Your task to perform on an android device: change the clock display to analog Image 0: 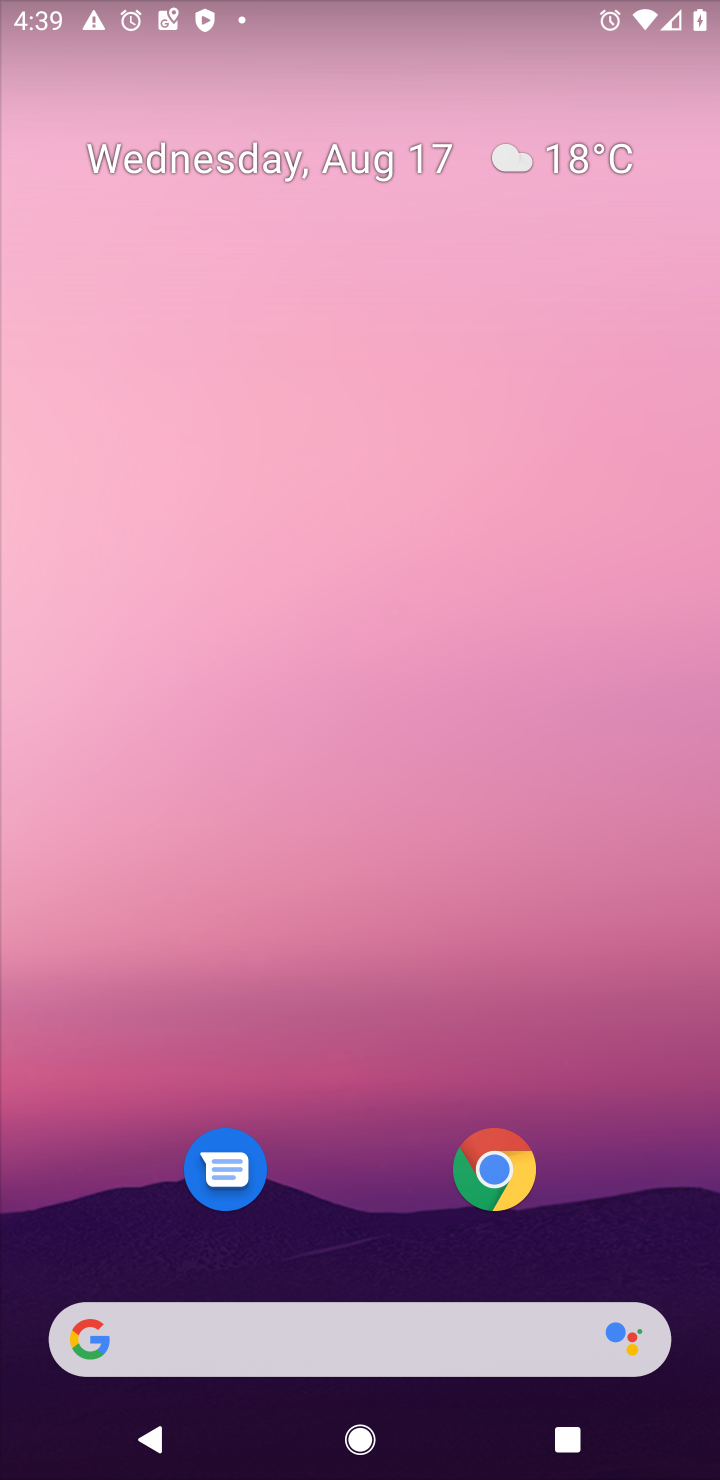
Step 0: drag from (381, 1219) to (393, 232)
Your task to perform on an android device: change the clock display to analog Image 1: 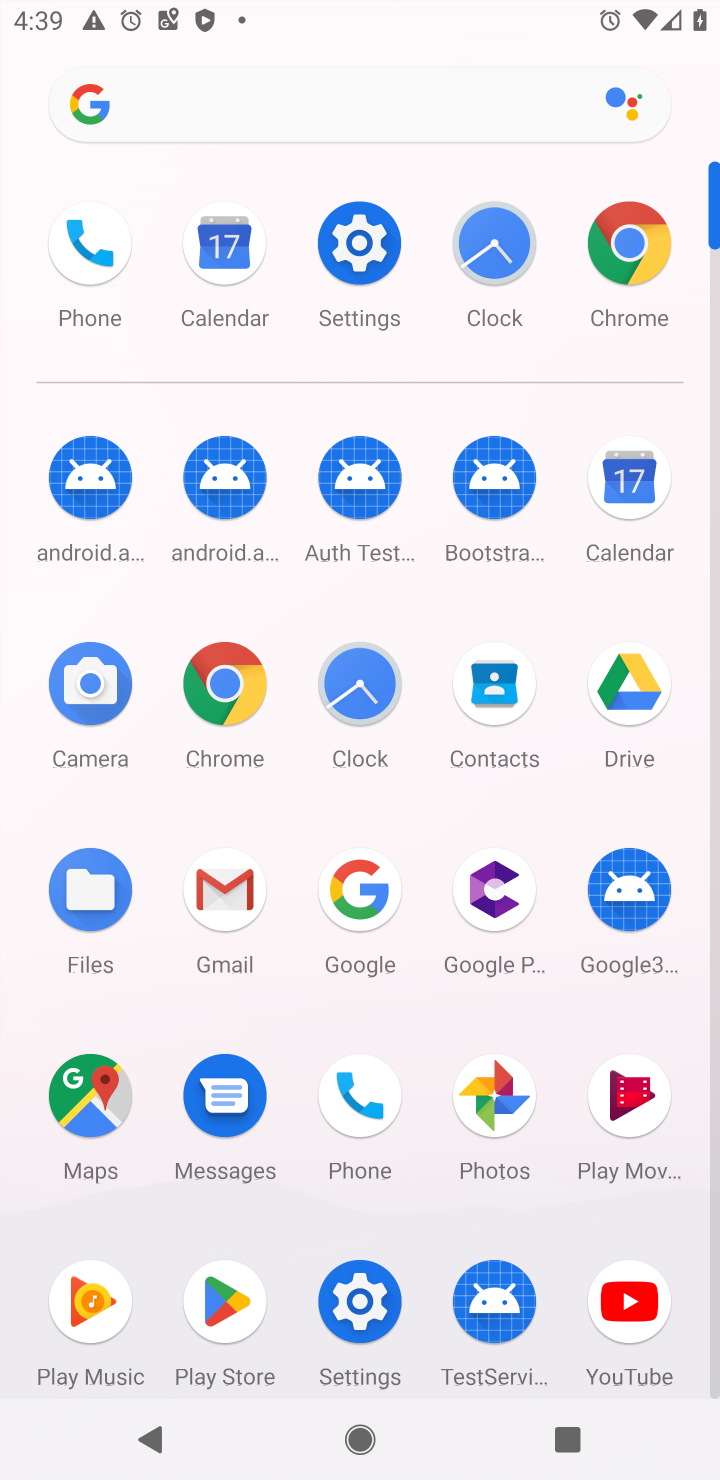
Step 1: click (354, 1292)
Your task to perform on an android device: change the clock display to analog Image 2: 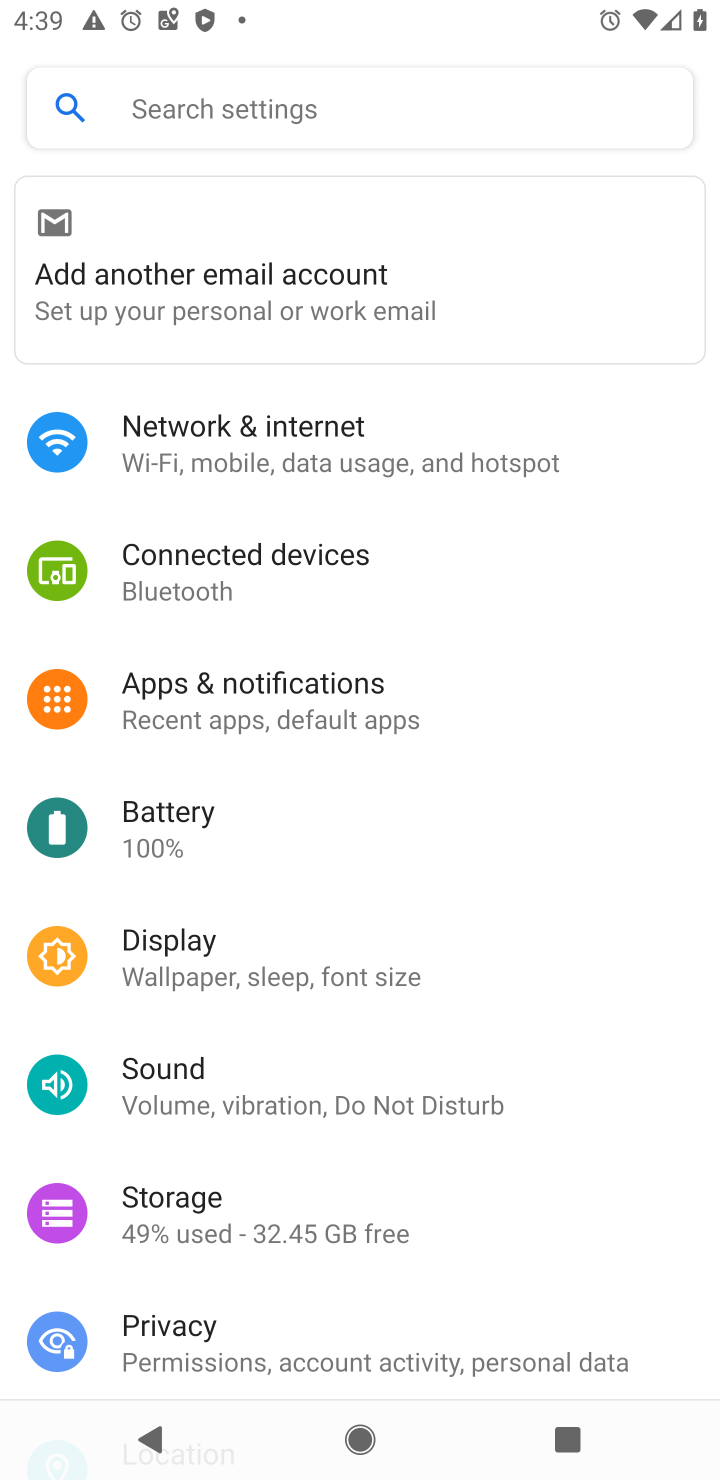
Step 2: click (129, 940)
Your task to perform on an android device: change the clock display to analog Image 3: 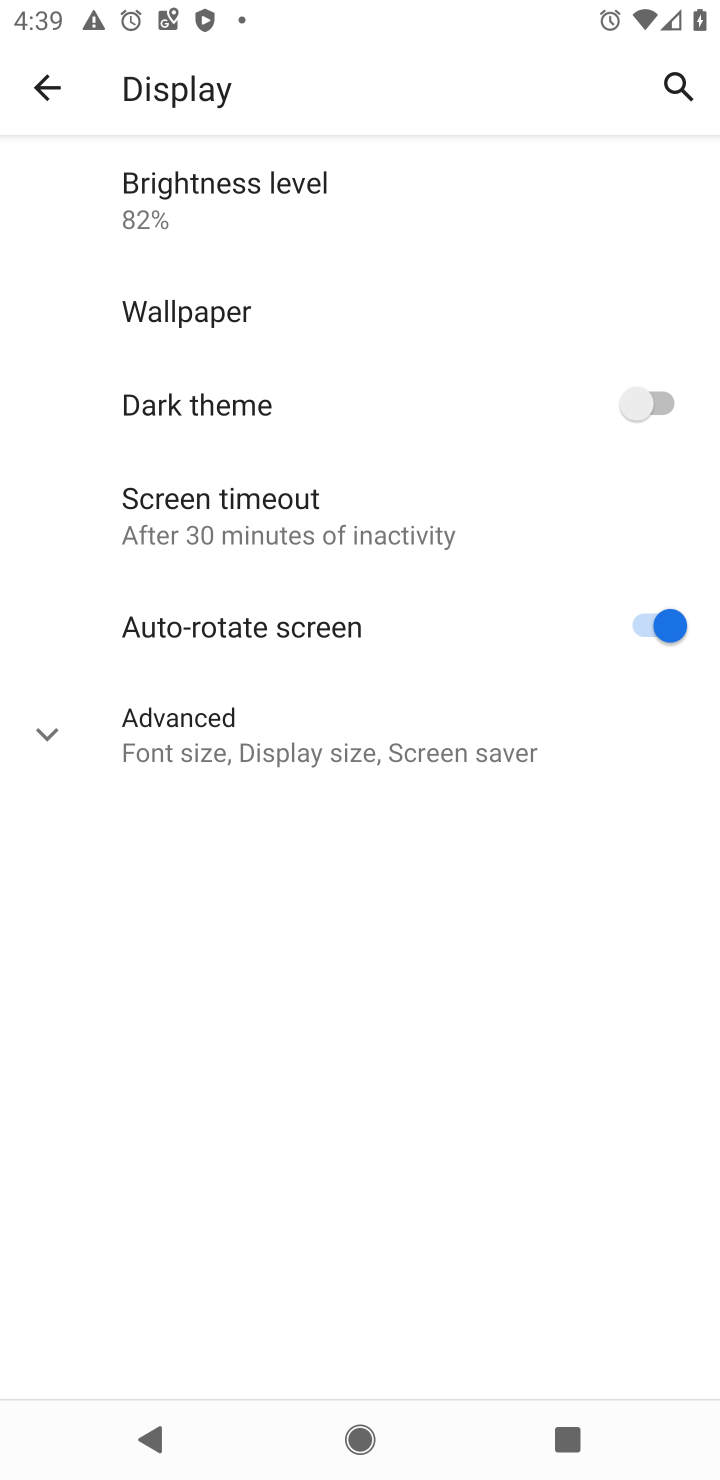
Step 3: task complete